Your task to perform on an android device: open chrome and create a bookmark for the current page Image 0: 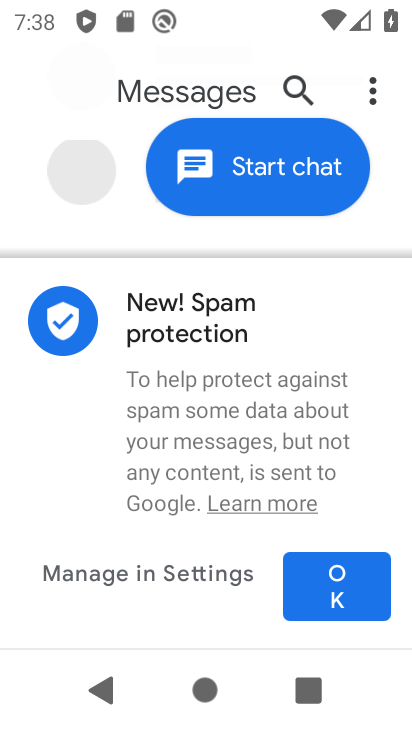
Step 0: press home button
Your task to perform on an android device: open chrome and create a bookmark for the current page Image 1: 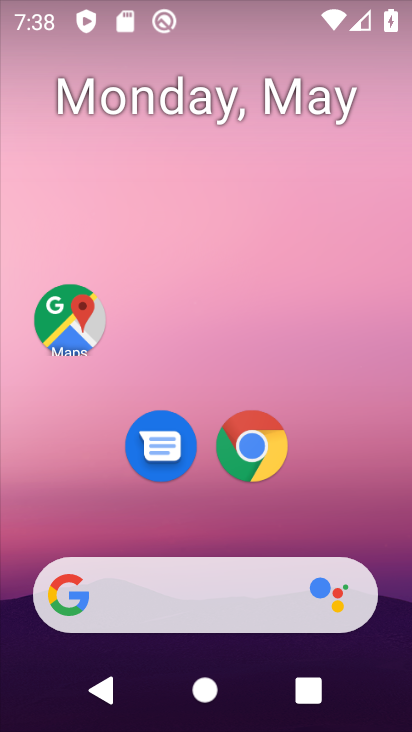
Step 1: click (248, 452)
Your task to perform on an android device: open chrome and create a bookmark for the current page Image 2: 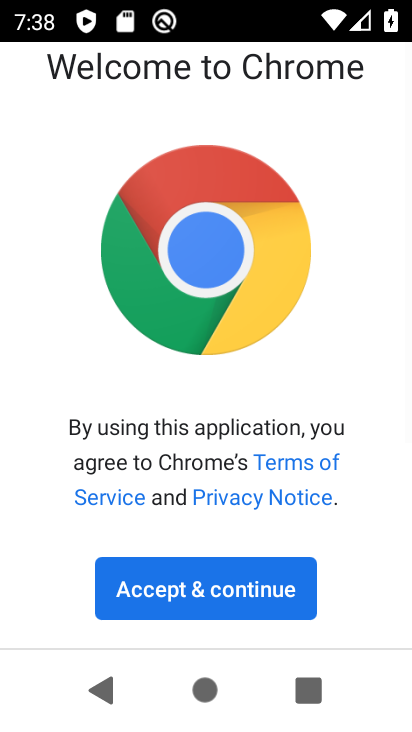
Step 2: click (227, 573)
Your task to perform on an android device: open chrome and create a bookmark for the current page Image 3: 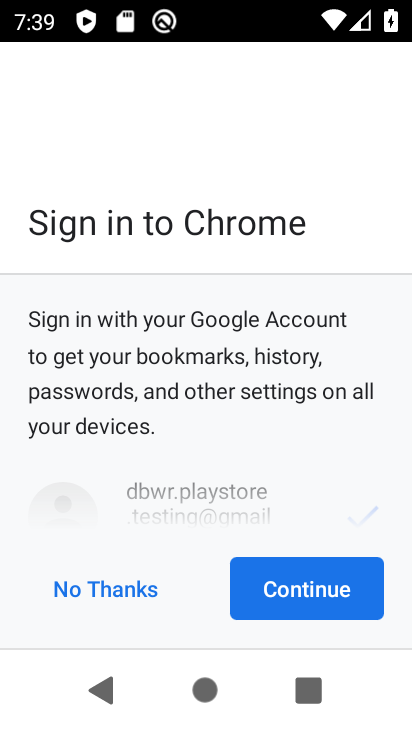
Step 3: click (113, 597)
Your task to perform on an android device: open chrome and create a bookmark for the current page Image 4: 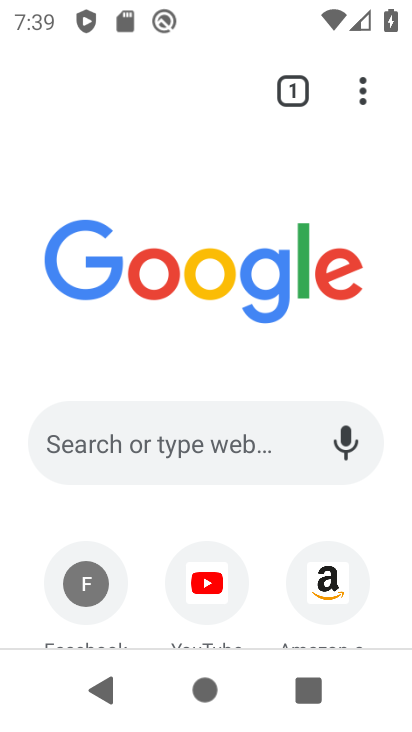
Step 4: click (362, 92)
Your task to perform on an android device: open chrome and create a bookmark for the current page Image 5: 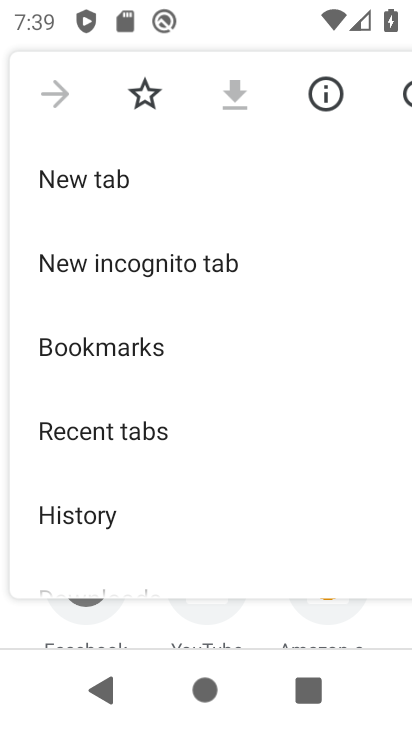
Step 5: click (148, 97)
Your task to perform on an android device: open chrome and create a bookmark for the current page Image 6: 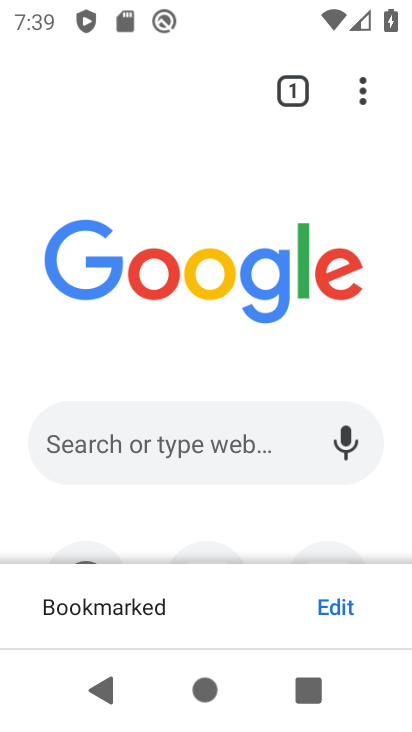
Step 6: task complete